Your task to perform on an android device: Open maps Image 0: 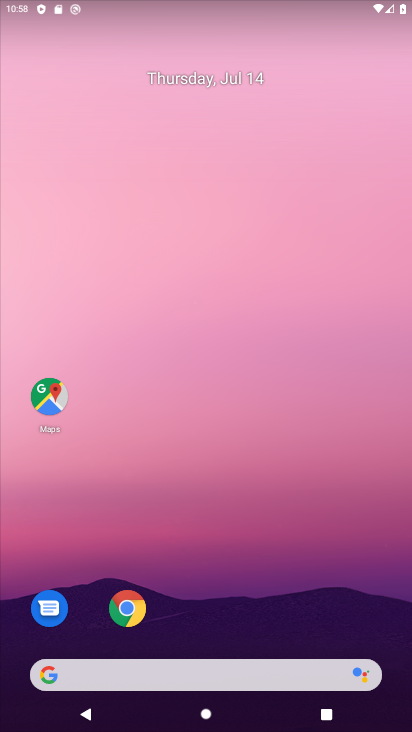
Step 0: drag from (252, 597) to (252, 119)
Your task to perform on an android device: Open maps Image 1: 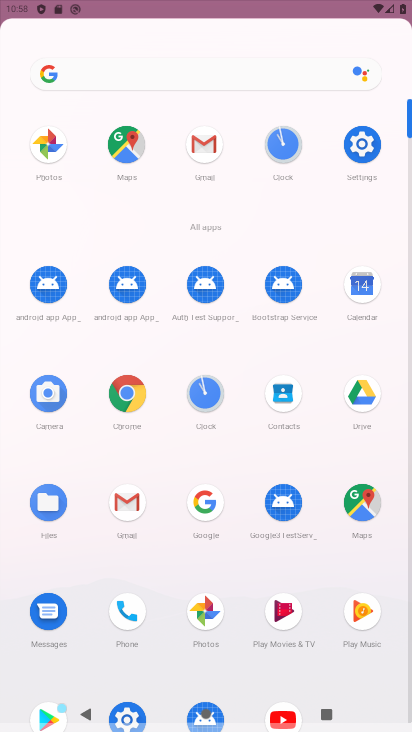
Step 1: click (53, 387)
Your task to perform on an android device: Open maps Image 2: 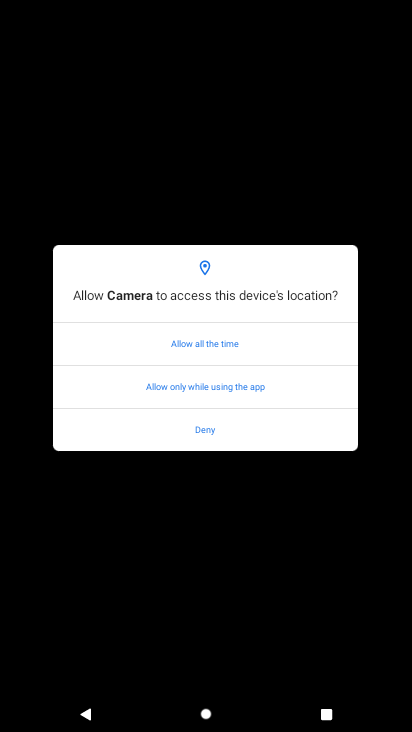
Step 2: click (217, 425)
Your task to perform on an android device: Open maps Image 3: 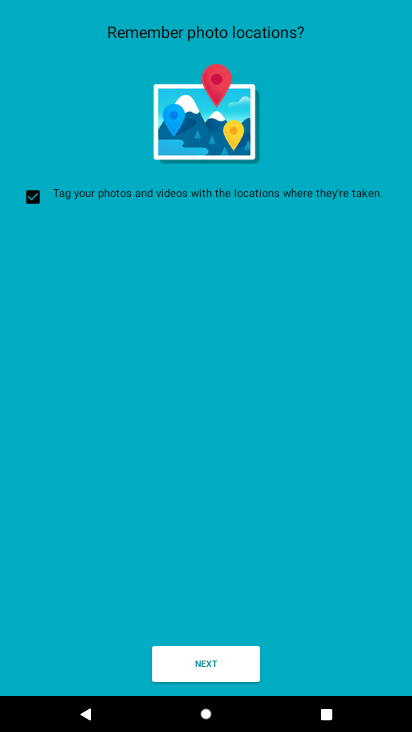
Step 3: press home button
Your task to perform on an android device: Open maps Image 4: 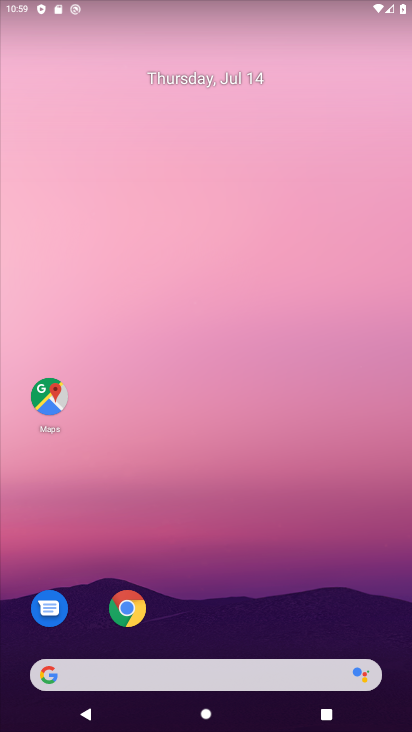
Step 4: click (52, 394)
Your task to perform on an android device: Open maps Image 5: 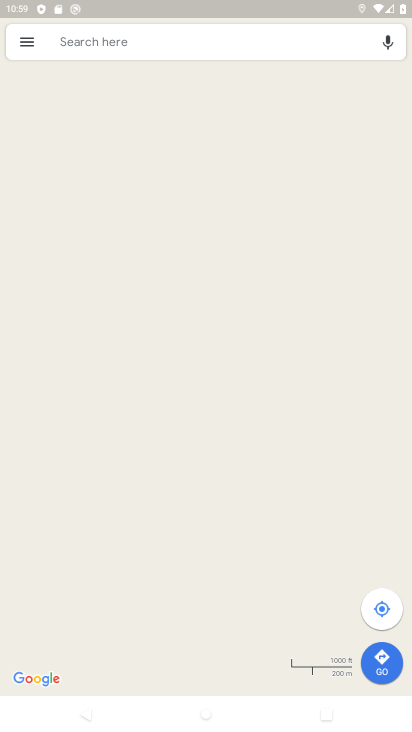
Step 5: task complete